Your task to perform on an android device: Is it going to rain today? Image 0: 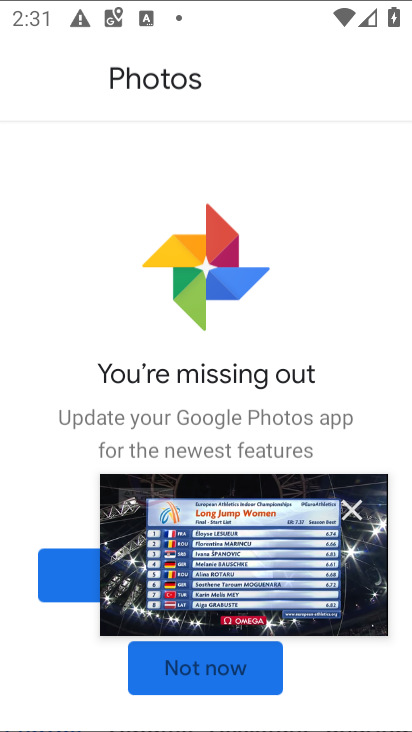
Step 0: click (357, 503)
Your task to perform on an android device: Is it going to rain today? Image 1: 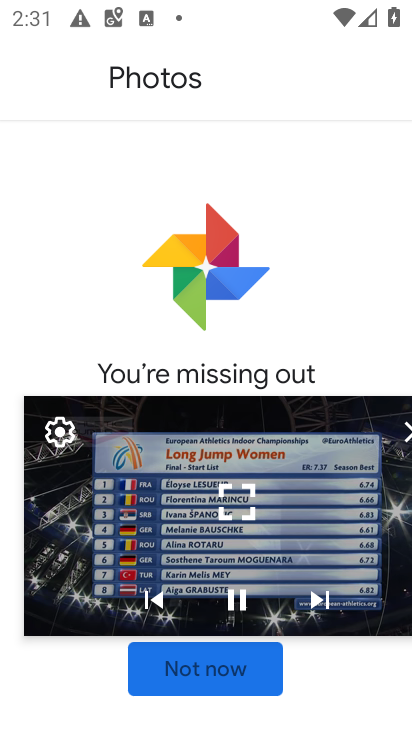
Step 1: click (404, 430)
Your task to perform on an android device: Is it going to rain today? Image 2: 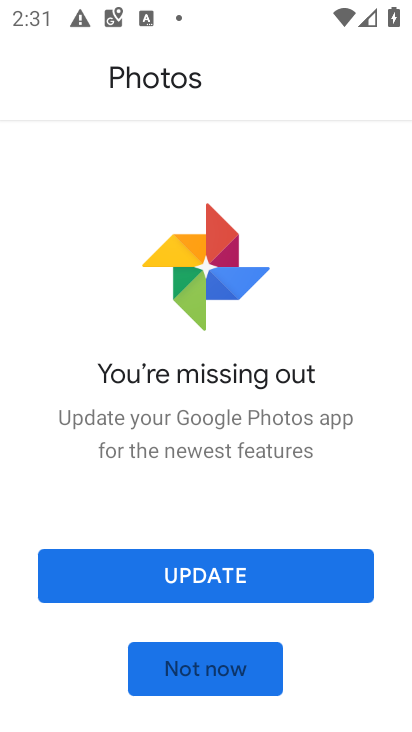
Step 2: press home button
Your task to perform on an android device: Is it going to rain today? Image 3: 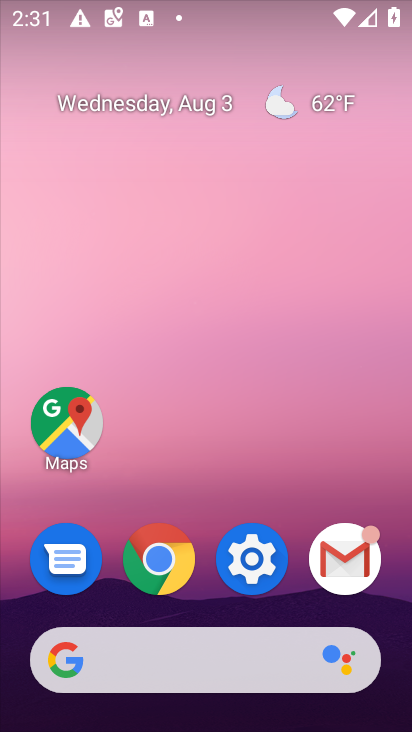
Step 3: click (191, 663)
Your task to perform on an android device: Is it going to rain today? Image 4: 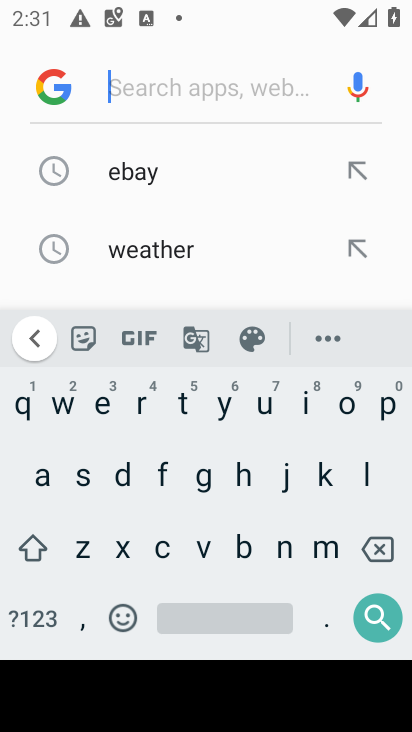
Step 4: click (303, 397)
Your task to perform on an android device: Is it going to rain today? Image 5: 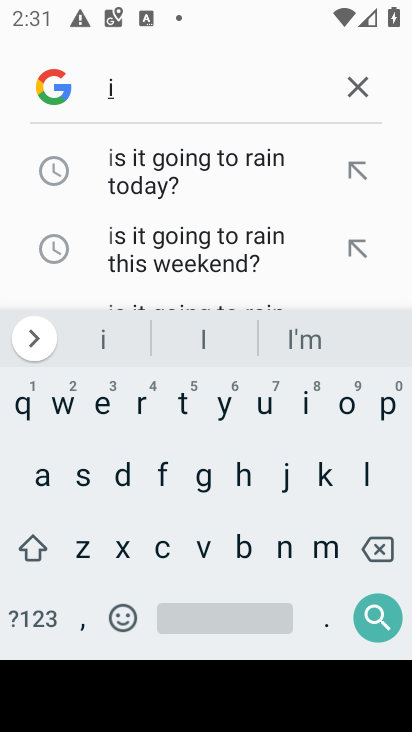
Step 5: click (218, 175)
Your task to perform on an android device: Is it going to rain today? Image 6: 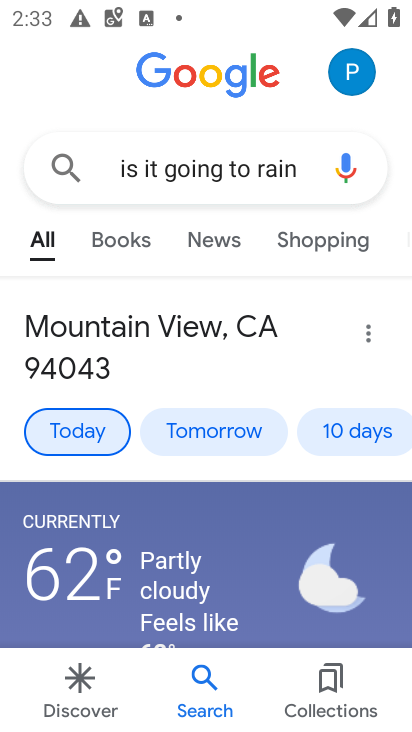
Step 6: task complete